Your task to perform on an android device: check android version Image 0: 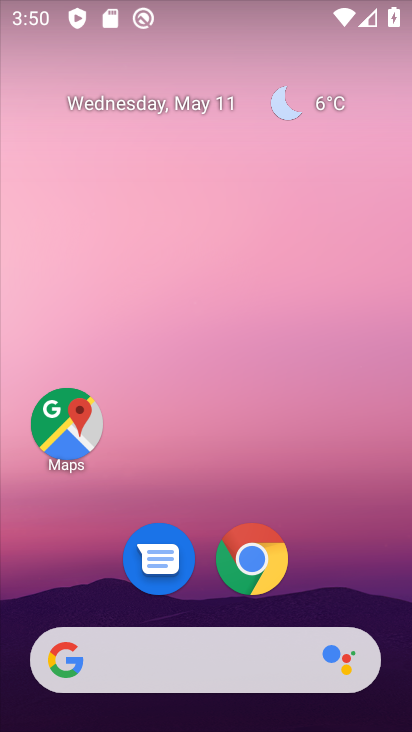
Step 0: drag from (356, 601) to (388, 130)
Your task to perform on an android device: check android version Image 1: 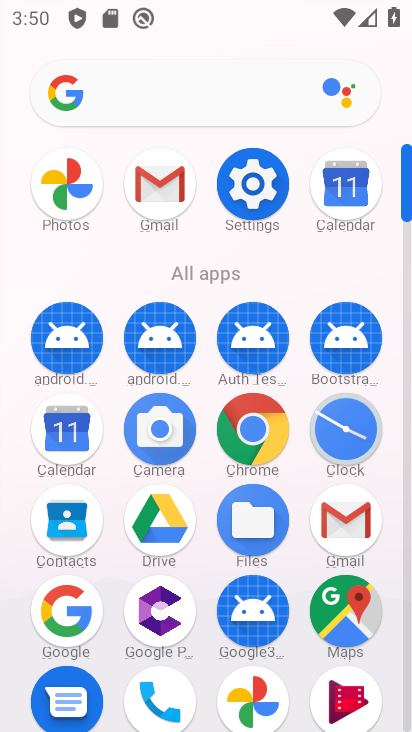
Step 1: click (265, 189)
Your task to perform on an android device: check android version Image 2: 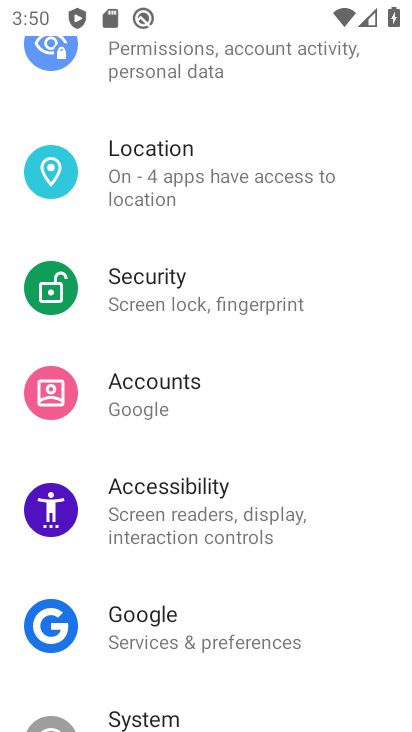
Step 2: drag from (245, 686) to (233, 176)
Your task to perform on an android device: check android version Image 3: 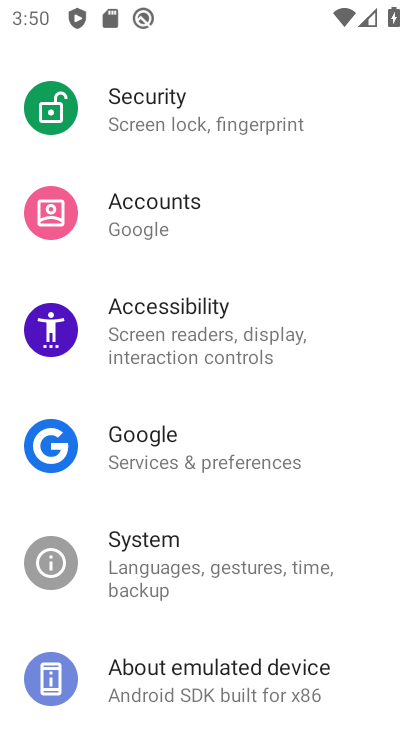
Step 3: drag from (308, 676) to (327, 169)
Your task to perform on an android device: check android version Image 4: 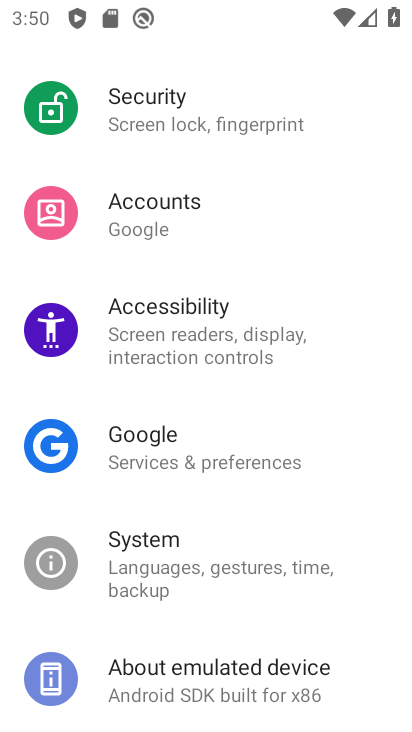
Step 4: click (234, 673)
Your task to perform on an android device: check android version Image 5: 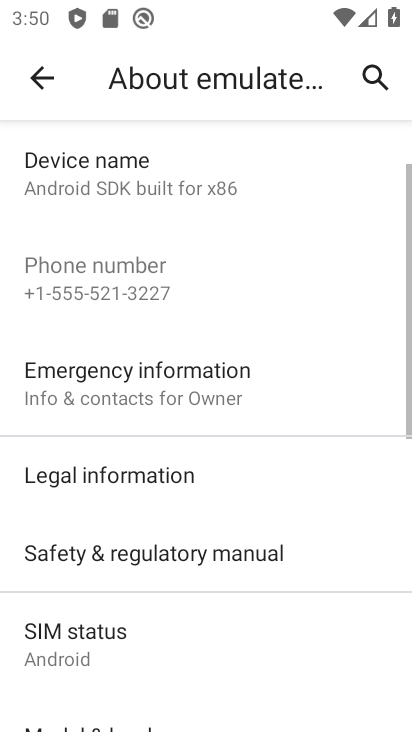
Step 5: drag from (235, 620) to (286, 170)
Your task to perform on an android device: check android version Image 6: 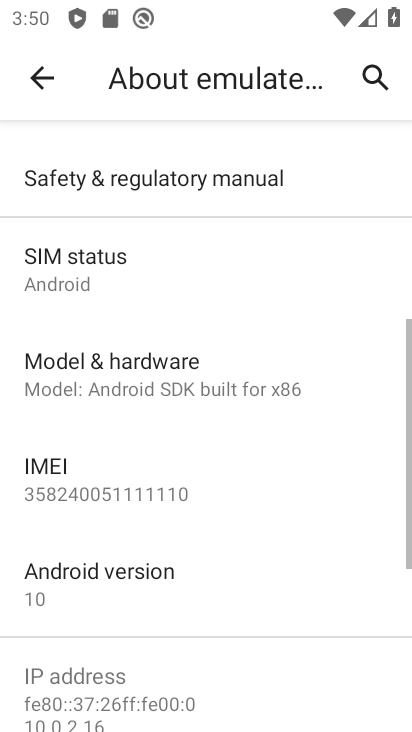
Step 6: click (87, 571)
Your task to perform on an android device: check android version Image 7: 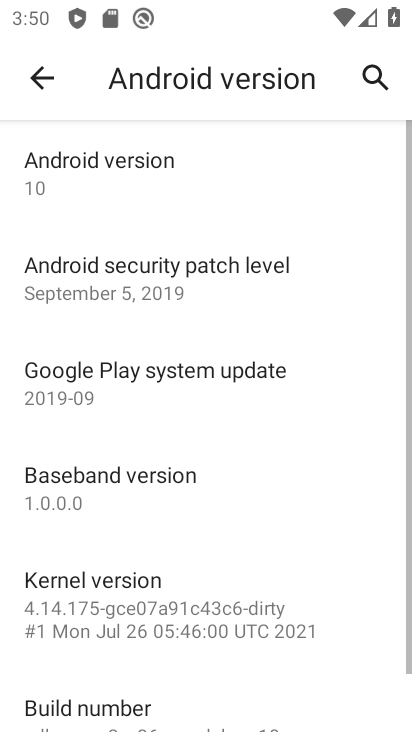
Step 7: task complete